Your task to perform on an android device: Open privacy settings Image 0: 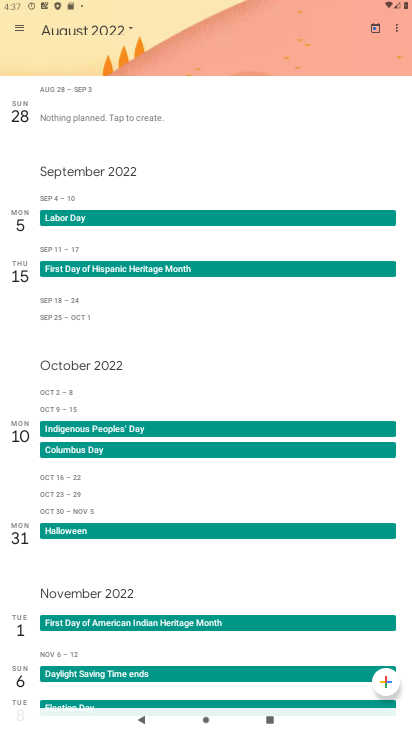
Step 0: press home button
Your task to perform on an android device: Open privacy settings Image 1: 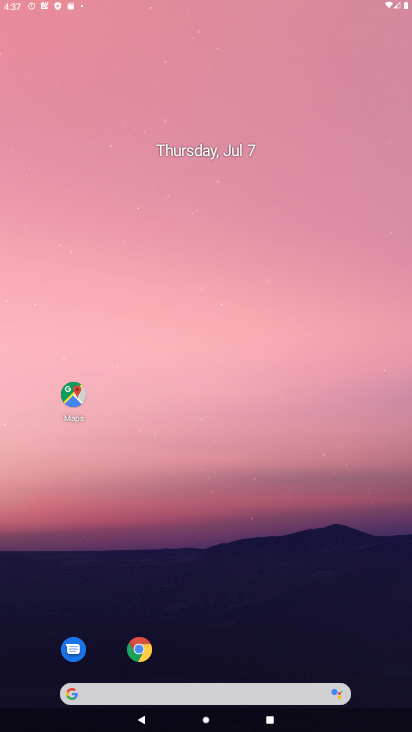
Step 1: drag from (352, 673) to (232, 49)
Your task to perform on an android device: Open privacy settings Image 2: 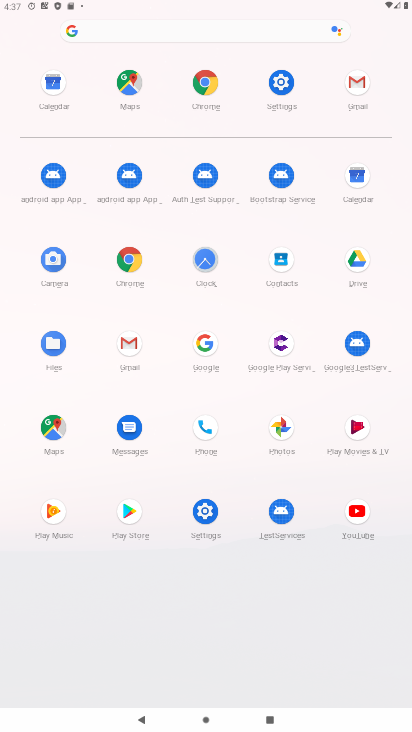
Step 2: click (276, 96)
Your task to perform on an android device: Open privacy settings Image 3: 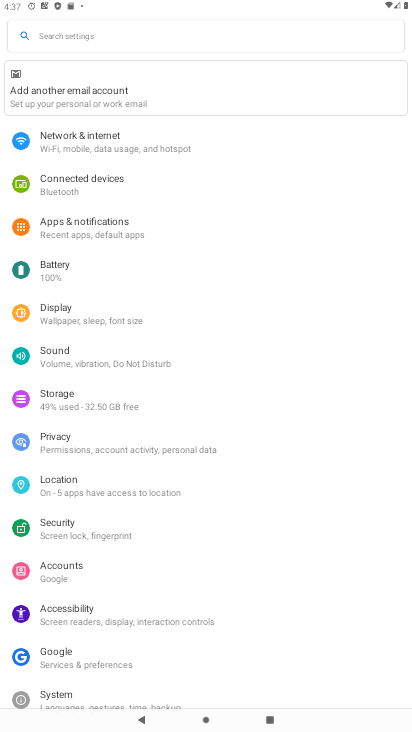
Step 3: click (106, 456)
Your task to perform on an android device: Open privacy settings Image 4: 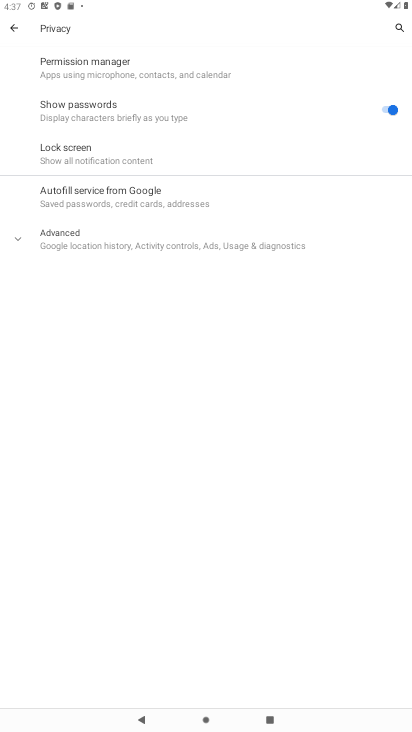
Step 4: task complete